Your task to perform on an android device: Open Google Chrome and click the shortcut for Amazon.com Image 0: 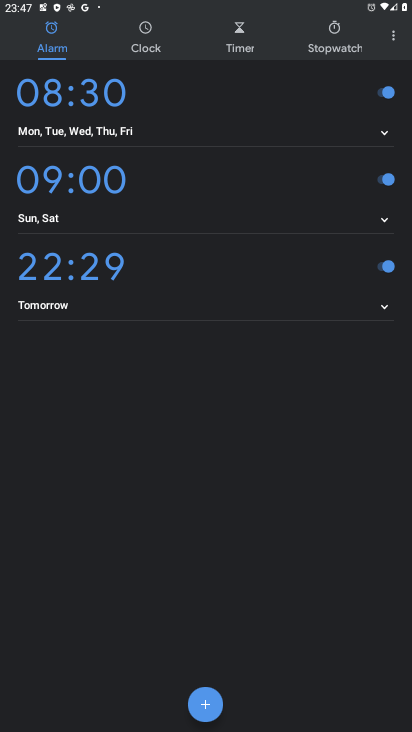
Step 0: press home button
Your task to perform on an android device: Open Google Chrome and click the shortcut for Amazon.com Image 1: 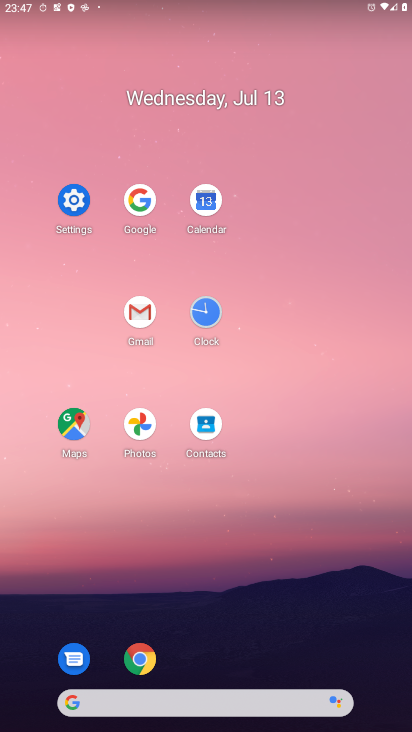
Step 1: click (137, 665)
Your task to perform on an android device: Open Google Chrome and click the shortcut for Amazon.com Image 2: 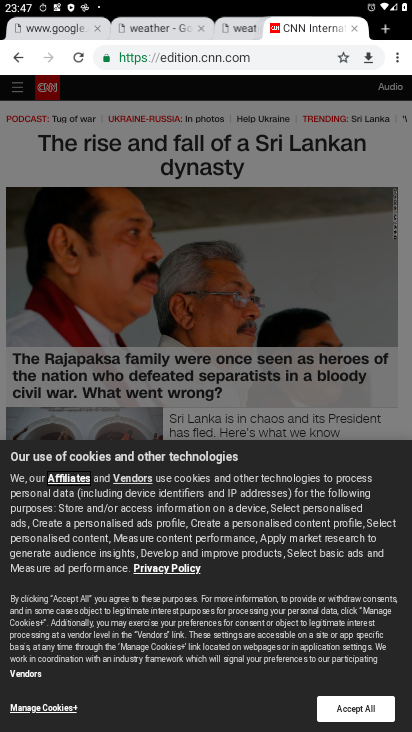
Step 2: click (380, 25)
Your task to perform on an android device: Open Google Chrome and click the shortcut for Amazon.com Image 3: 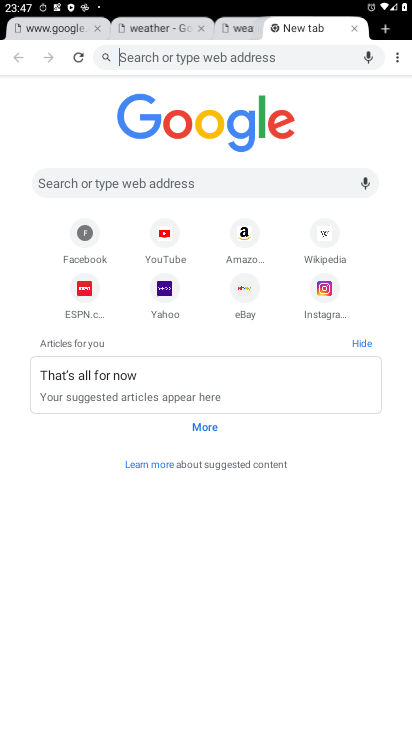
Step 3: click (237, 235)
Your task to perform on an android device: Open Google Chrome and click the shortcut for Amazon.com Image 4: 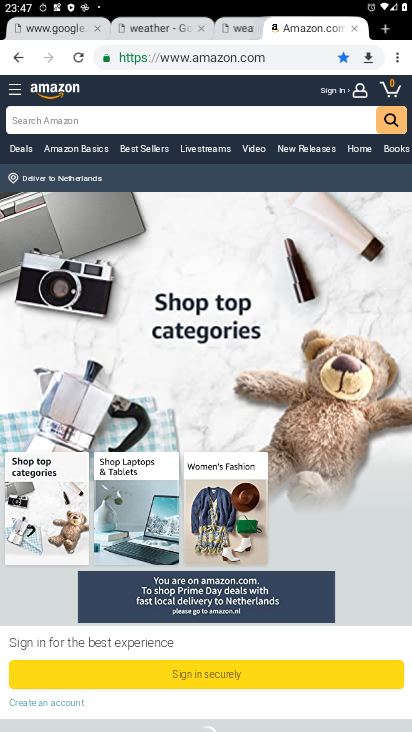
Step 4: click (397, 49)
Your task to perform on an android device: Open Google Chrome and click the shortcut for Amazon.com Image 5: 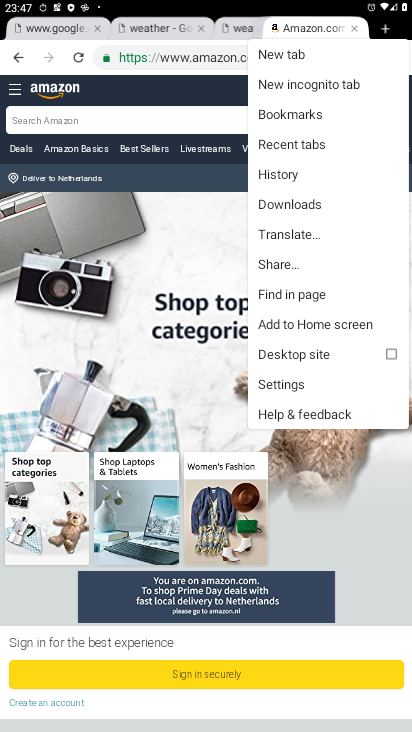
Step 5: click (332, 318)
Your task to perform on an android device: Open Google Chrome and click the shortcut for Amazon.com Image 6: 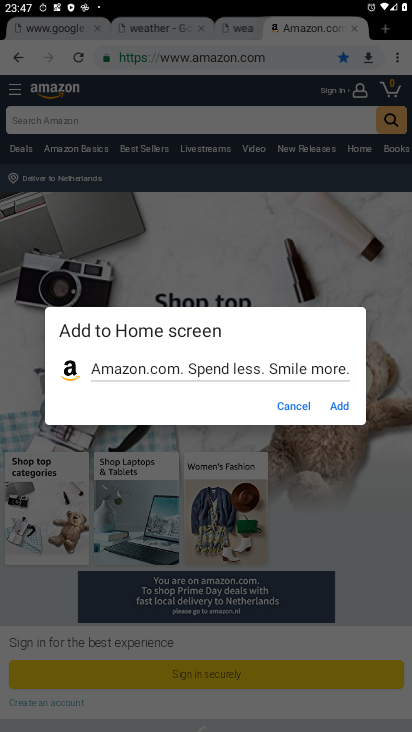
Step 6: click (348, 400)
Your task to perform on an android device: Open Google Chrome and click the shortcut for Amazon.com Image 7: 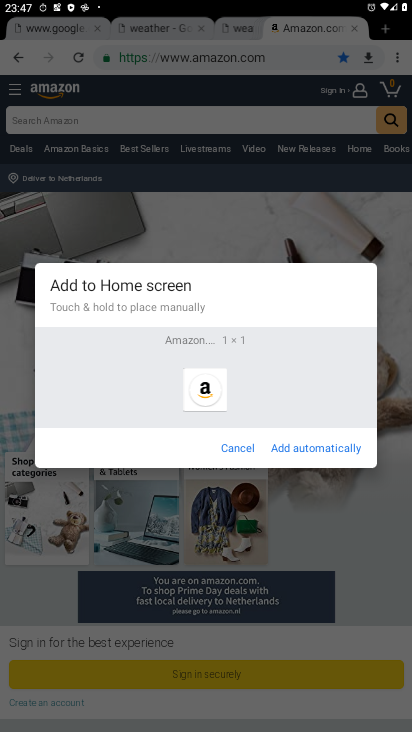
Step 7: click (325, 437)
Your task to perform on an android device: Open Google Chrome and click the shortcut for Amazon.com Image 8: 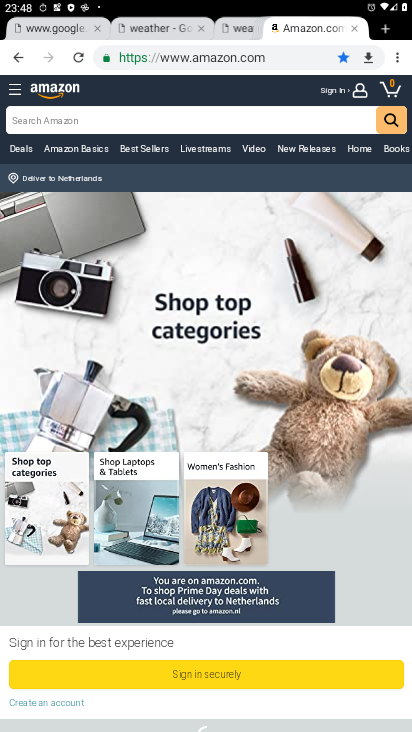
Step 8: task complete